Your task to perform on an android device: refresh tabs in the chrome app Image 0: 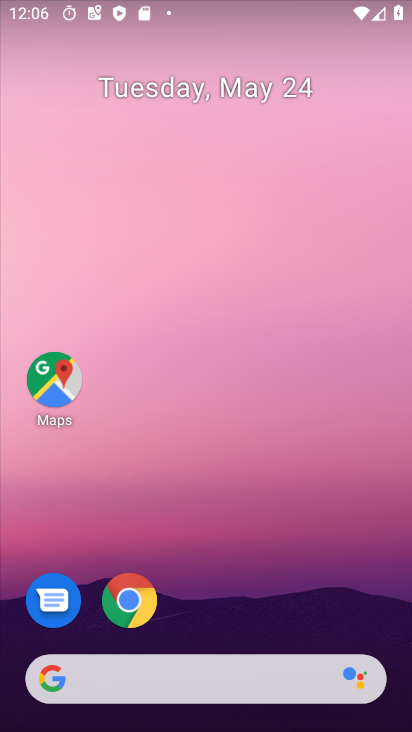
Step 0: click (132, 601)
Your task to perform on an android device: refresh tabs in the chrome app Image 1: 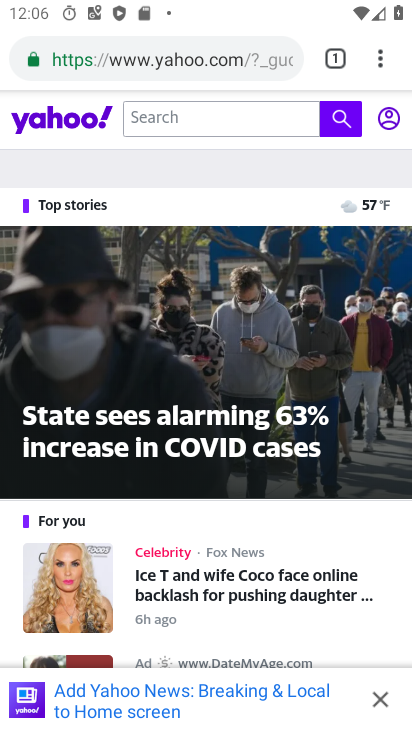
Step 1: click (375, 49)
Your task to perform on an android device: refresh tabs in the chrome app Image 2: 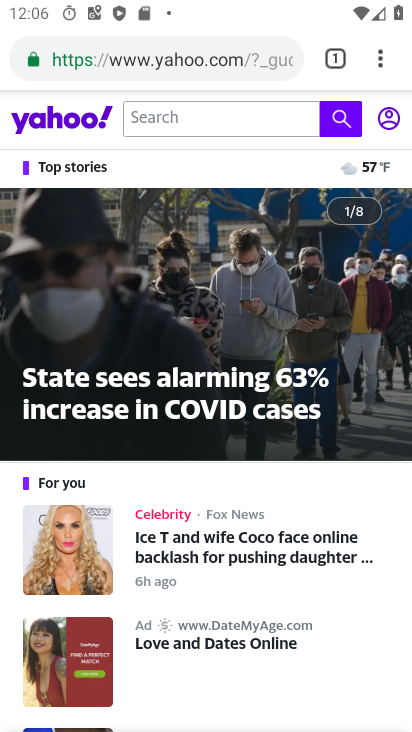
Step 2: task complete